Your task to perform on an android device: toggle airplane mode Image 0: 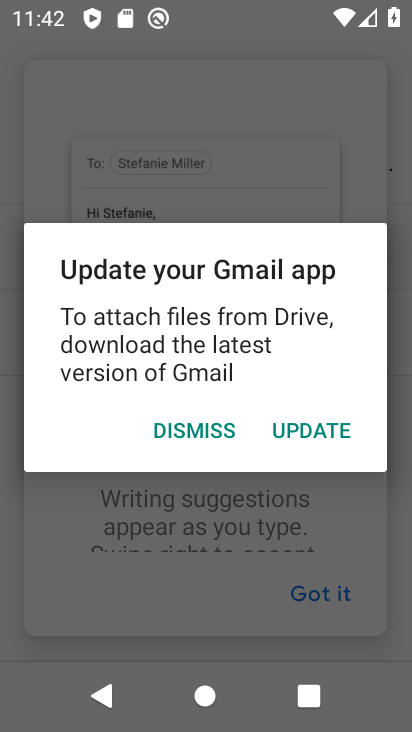
Step 0: press home button
Your task to perform on an android device: toggle airplane mode Image 1: 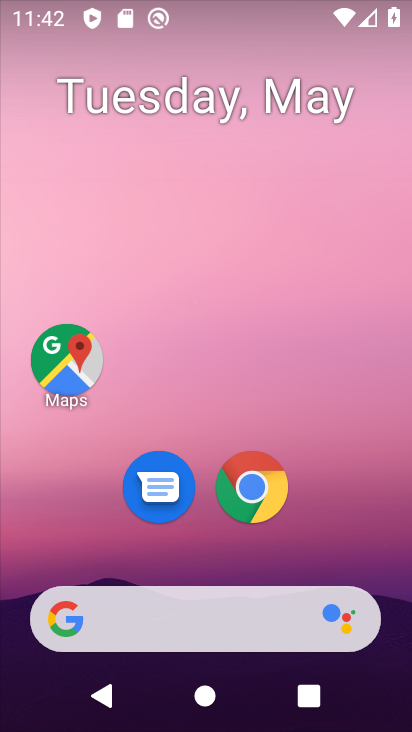
Step 1: drag from (330, 557) to (292, 245)
Your task to perform on an android device: toggle airplane mode Image 2: 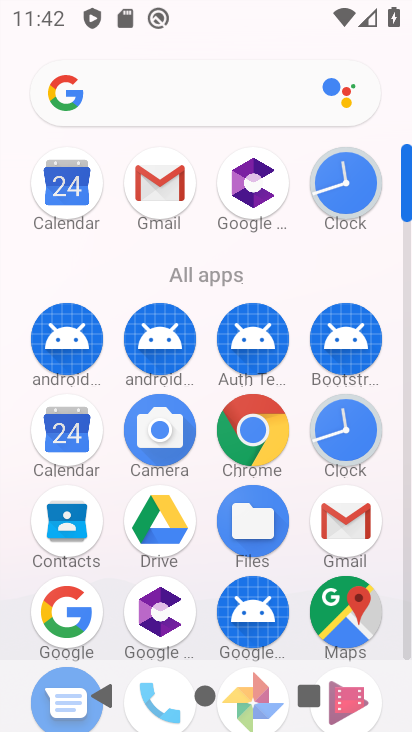
Step 2: drag from (306, 628) to (237, 197)
Your task to perform on an android device: toggle airplane mode Image 3: 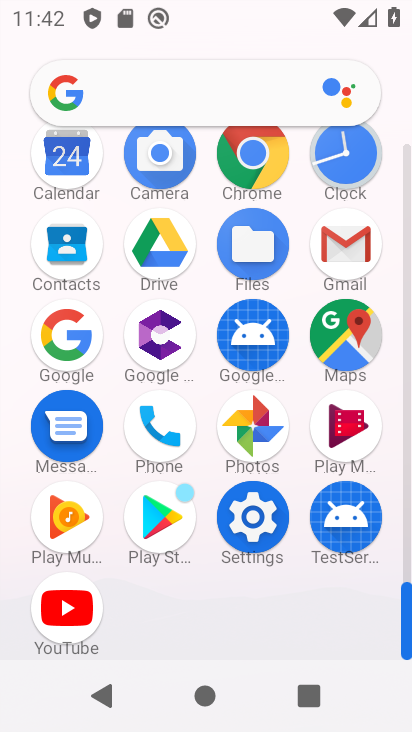
Step 3: click (281, 512)
Your task to perform on an android device: toggle airplane mode Image 4: 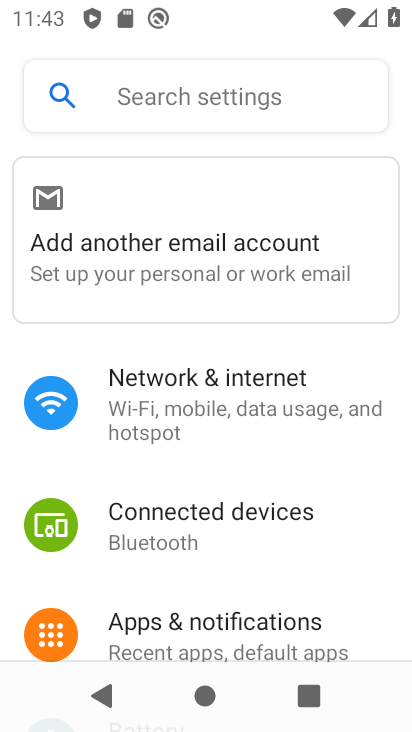
Step 4: click (104, 234)
Your task to perform on an android device: toggle airplane mode Image 5: 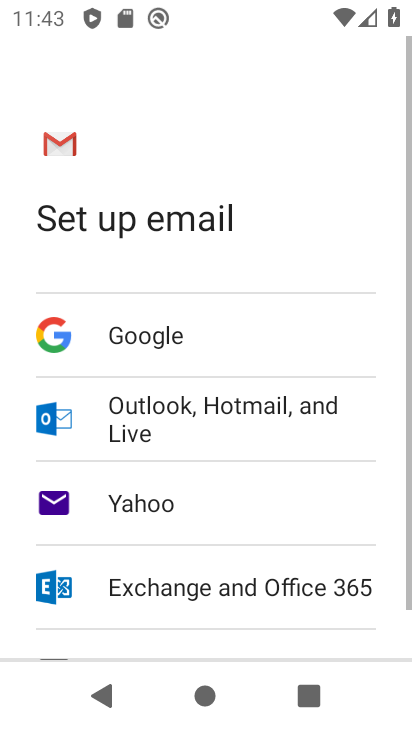
Step 5: press home button
Your task to perform on an android device: toggle airplane mode Image 6: 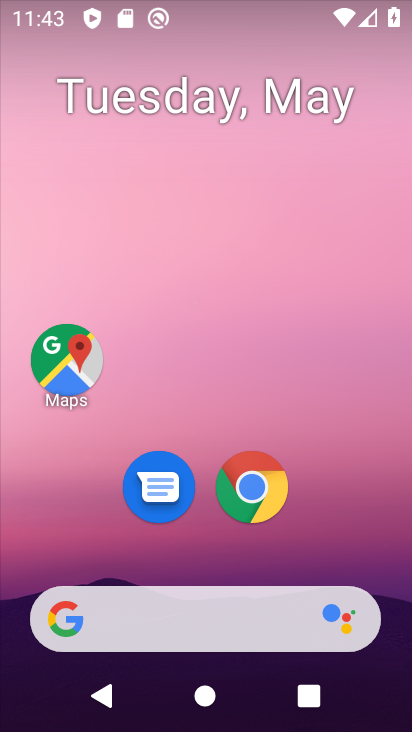
Step 6: drag from (288, 566) to (196, 281)
Your task to perform on an android device: toggle airplane mode Image 7: 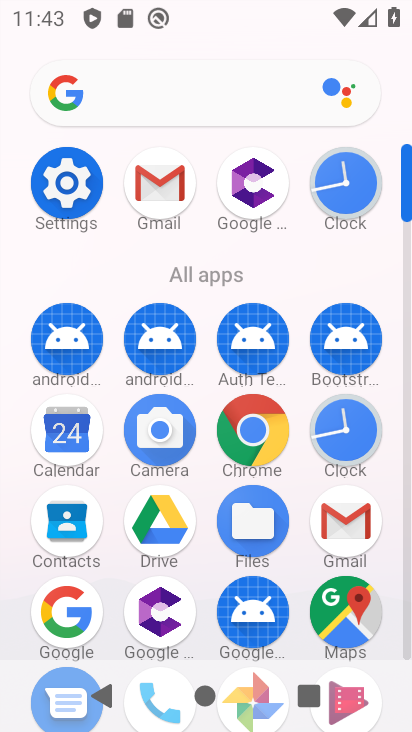
Step 7: click (48, 184)
Your task to perform on an android device: toggle airplane mode Image 8: 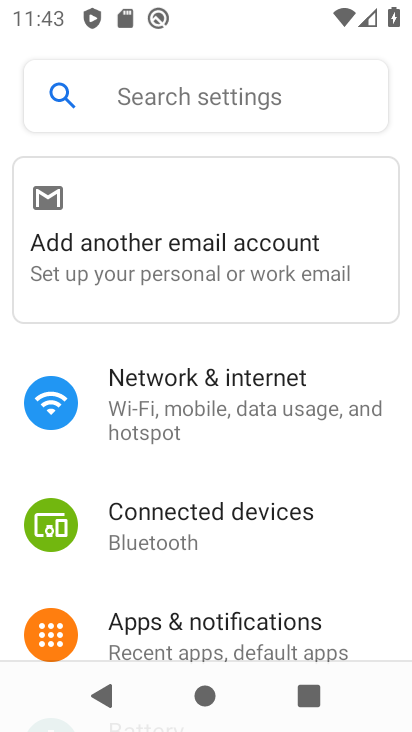
Step 8: click (161, 378)
Your task to perform on an android device: toggle airplane mode Image 9: 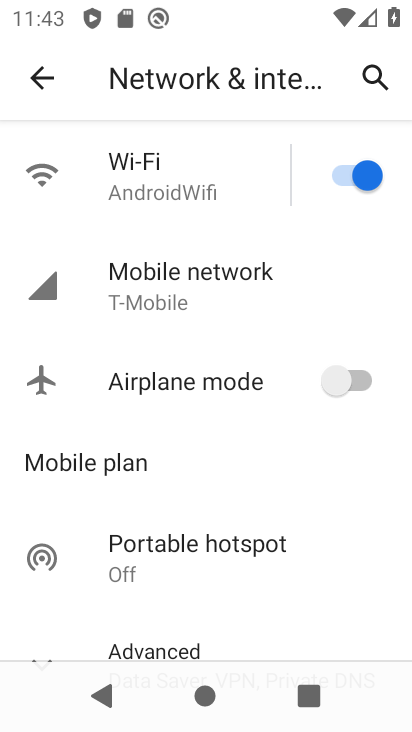
Step 9: click (345, 397)
Your task to perform on an android device: toggle airplane mode Image 10: 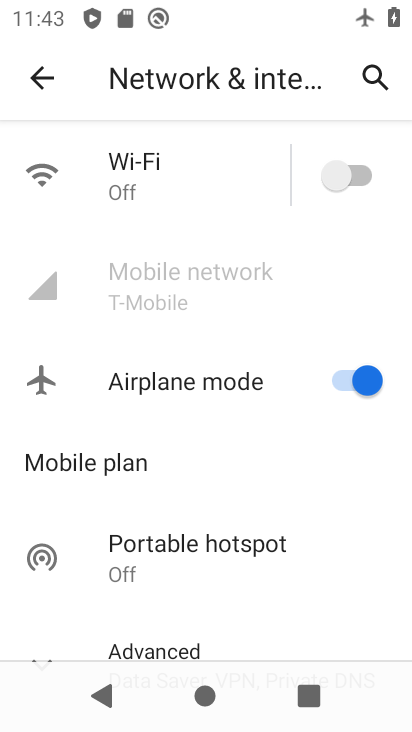
Step 10: task complete